Your task to perform on an android device: turn on notifications settings in the gmail app Image 0: 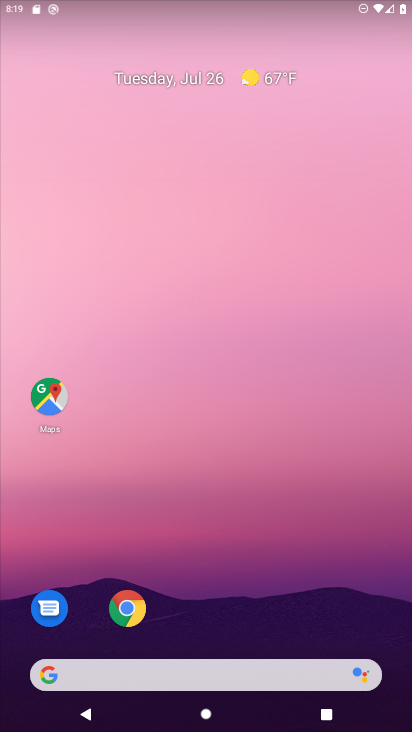
Step 0: drag from (187, 642) to (309, 26)
Your task to perform on an android device: turn on notifications settings in the gmail app Image 1: 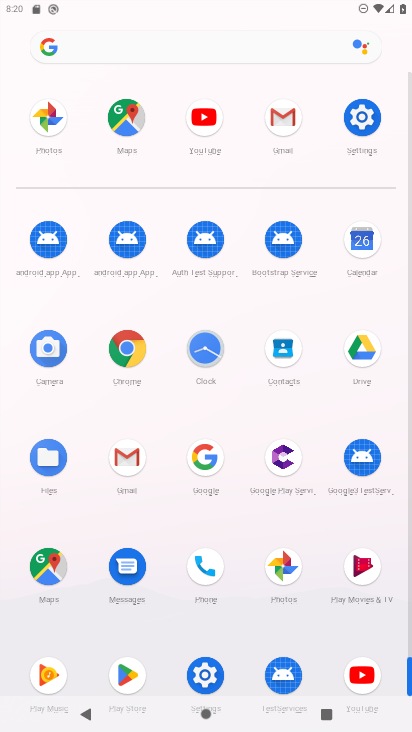
Step 1: click (128, 455)
Your task to perform on an android device: turn on notifications settings in the gmail app Image 2: 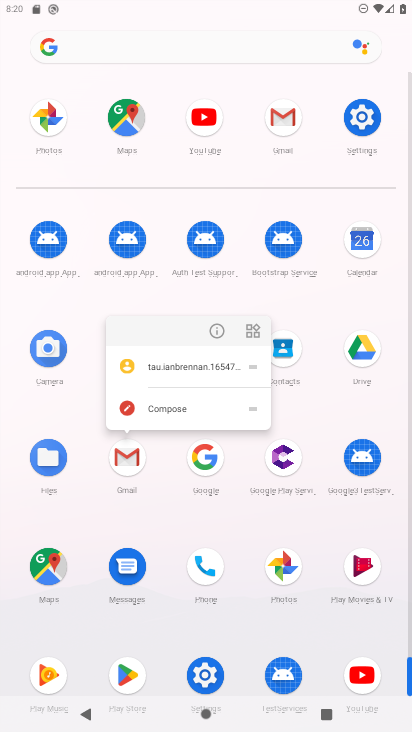
Step 2: click (130, 451)
Your task to perform on an android device: turn on notifications settings in the gmail app Image 3: 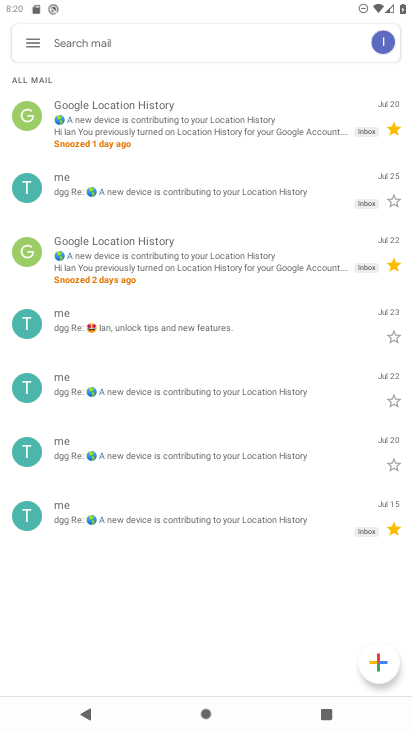
Step 3: click (22, 37)
Your task to perform on an android device: turn on notifications settings in the gmail app Image 4: 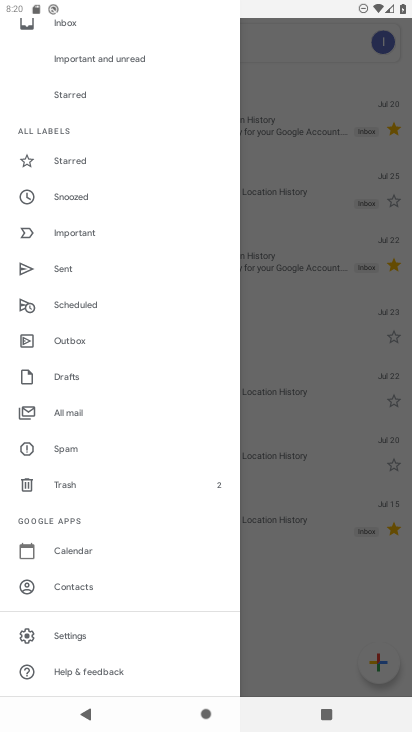
Step 4: click (78, 638)
Your task to perform on an android device: turn on notifications settings in the gmail app Image 5: 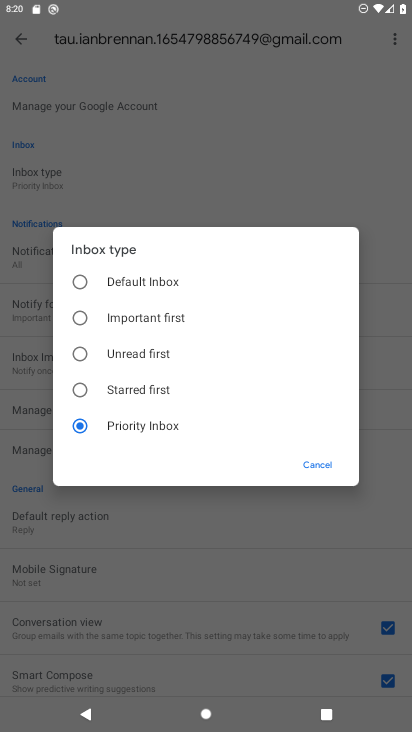
Step 5: click (169, 586)
Your task to perform on an android device: turn on notifications settings in the gmail app Image 6: 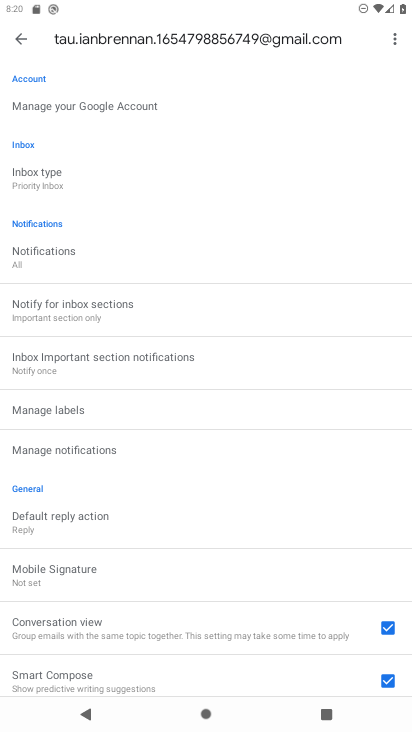
Step 6: click (22, 38)
Your task to perform on an android device: turn on notifications settings in the gmail app Image 7: 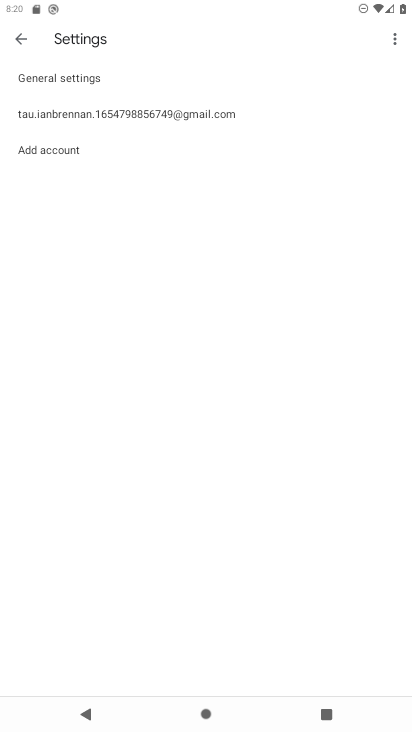
Step 7: click (44, 71)
Your task to perform on an android device: turn on notifications settings in the gmail app Image 8: 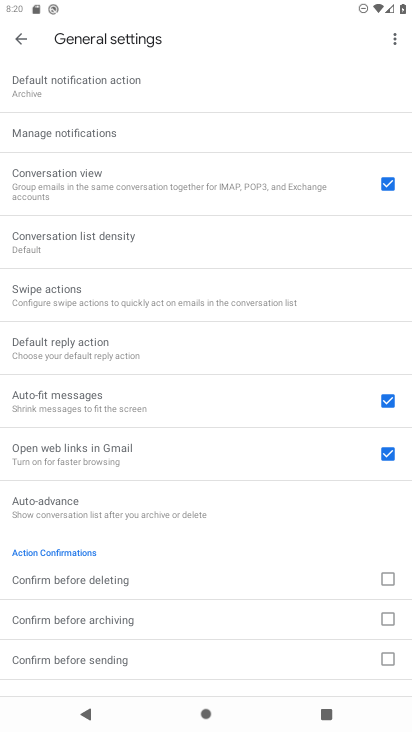
Step 8: click (119, 124)
Your task to perform on an android device: turn on notifications settings in the gmail app Image 9: 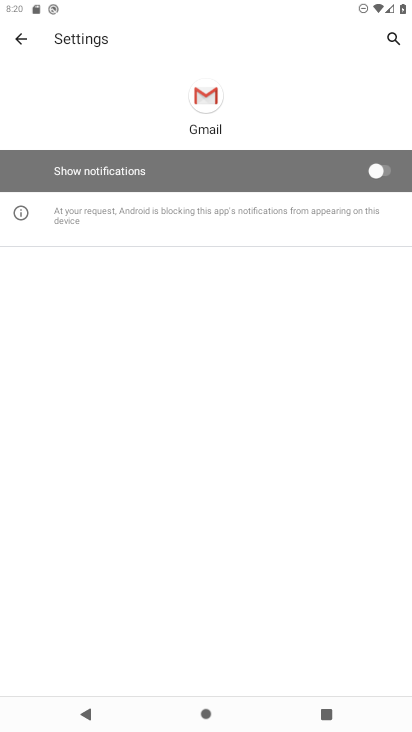
Step 9: click (404, 185)
Your task to perform on an android device: turn on notifications settings in the gmail app Image 10: 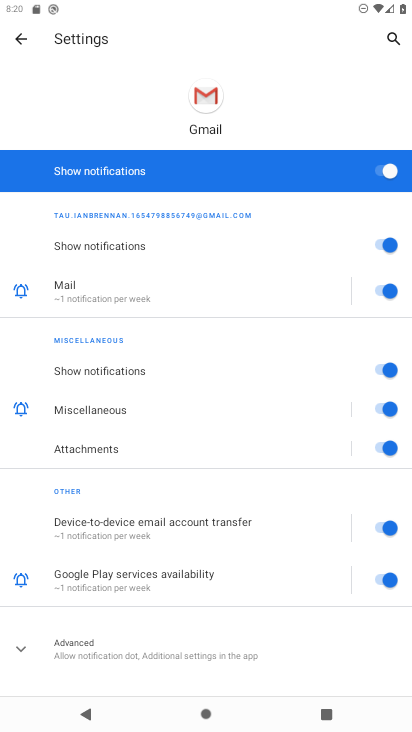
Step 10: task complete